Your task to perform on an android device: set default search engine in the chrome app Image 0: 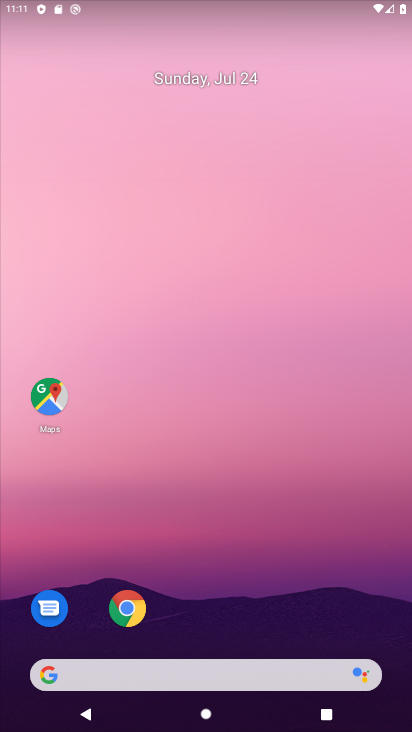
Step 0: click (127, 610)
Your task to perform on an android device: set default search engine in the chrome app Image 1: 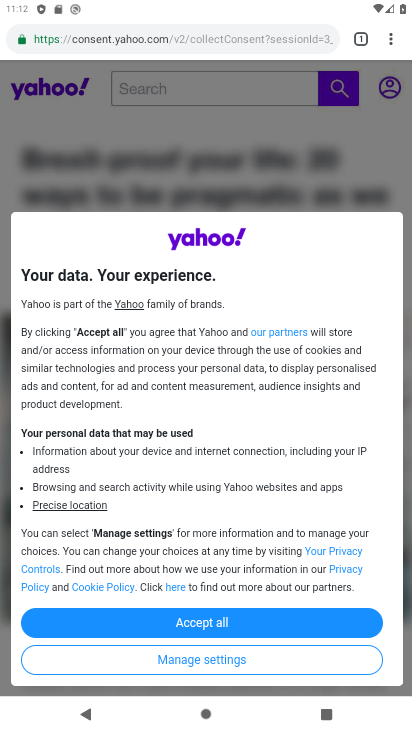
Step 1: click (392, 38)
Your task to perform on an android device: set default search engine in the chrome app Image 2: 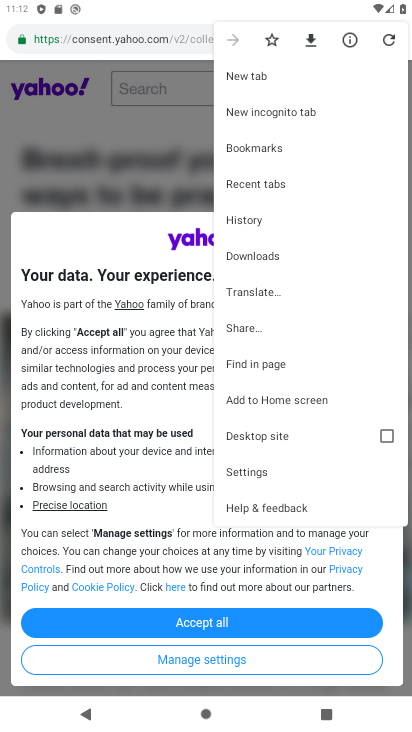
Step 2: click (249, 476)
Your task to perform on an android device: set default search engine in the chrome app Image 3: 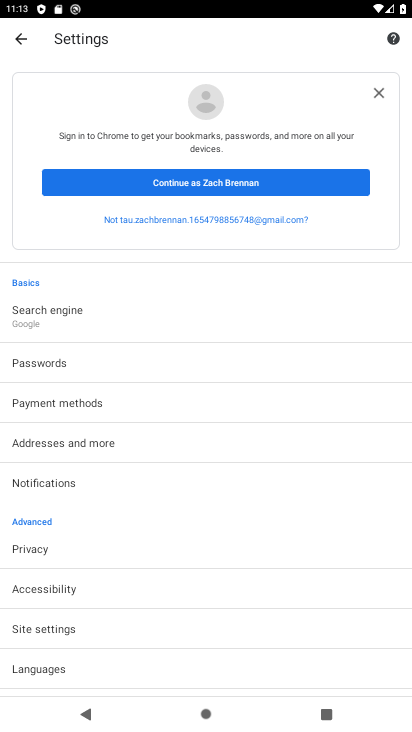
Step 3: click (21, 303)
Your task to perform on an android device: set default search engine in the chrome app Image 4: 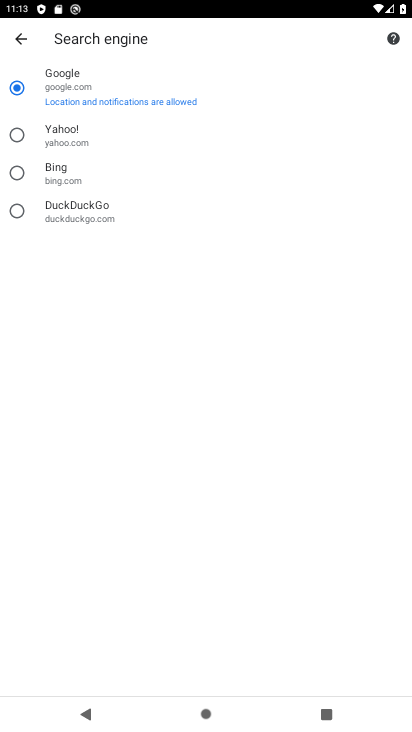
Step 4: click (20, 134)
Your task to perform on an android device: set default search engine in the chrome app Image 5: 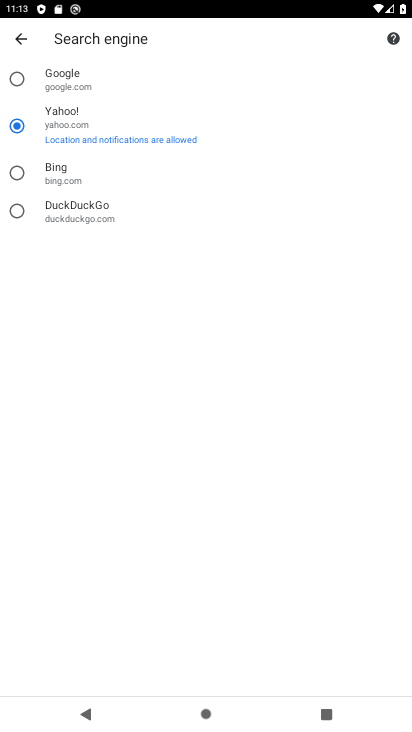
Step 5: task complete